Your task to perform on an android device: turn on sleep mode Image 0: 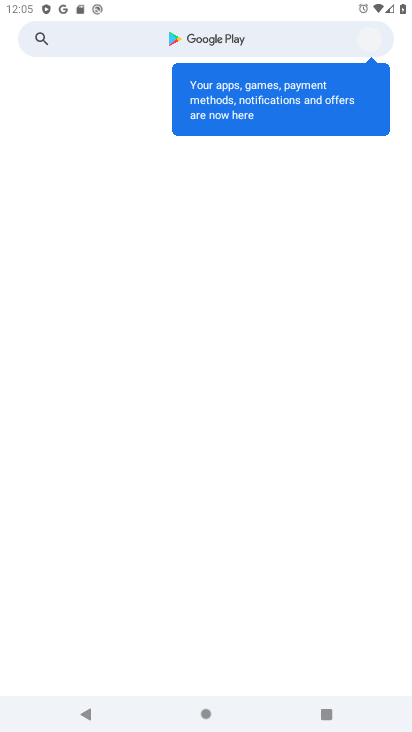
Step 0: press home button
Your task to perform on an android device: turn on sleep mode Image 1: 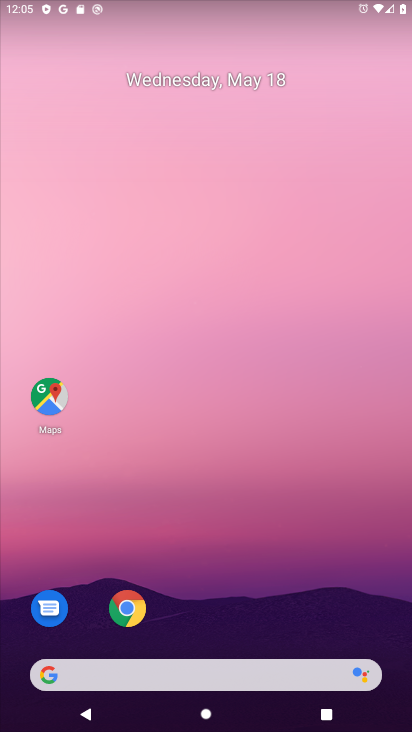
Step 1: drag from (281, 677) to (325, 211)
Your task to perform on an android device: turn on sleep mode Image 2: 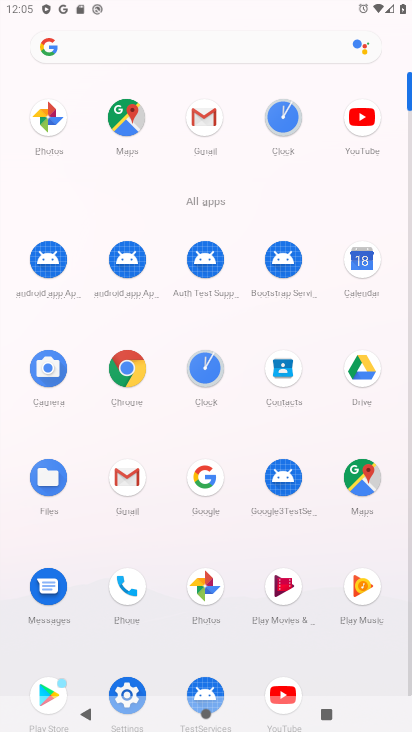
Step 2: click (129, 685)
Your task to perform on an android device: turn on sleep mode Image 3: 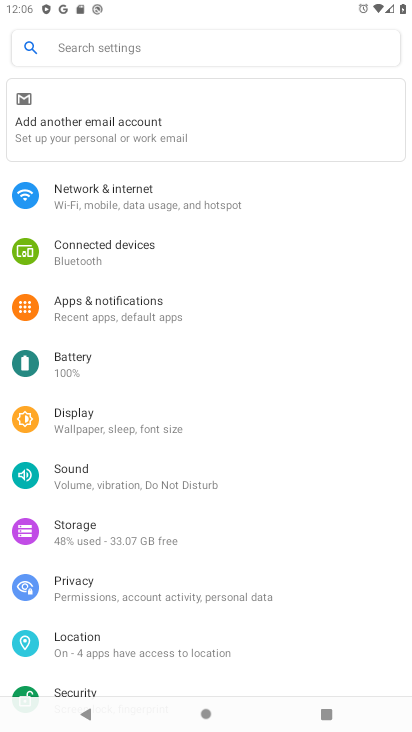
Step 3: click (86, 49)
Your task to perform on an android device: turn on sleep mode Image 4: 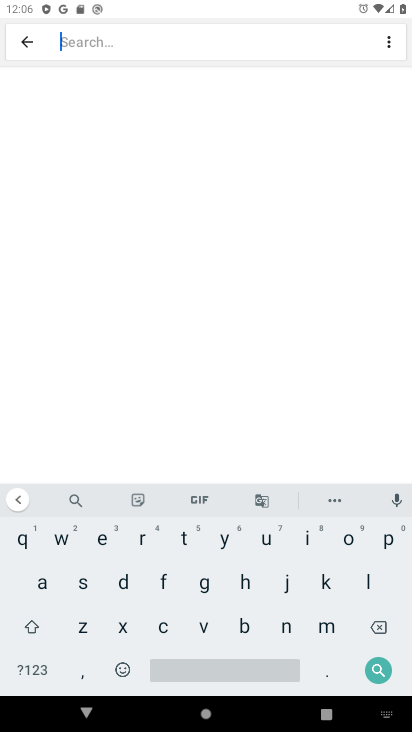
Step 4: click (81, 582)
Your task to perform on an android device: turn on sleep mode Image 5: 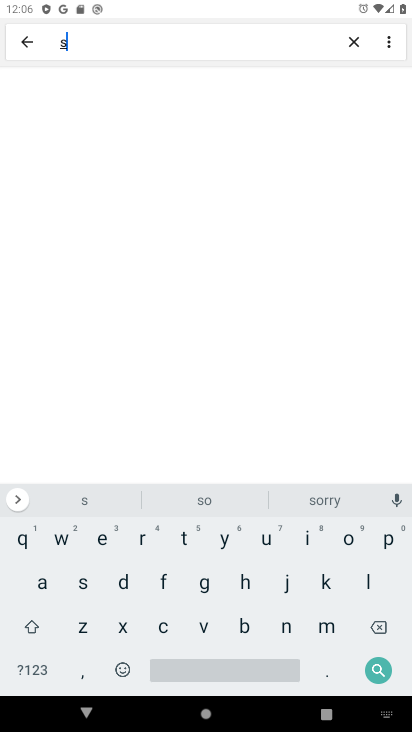
Step 5: click (369, 586)
Your task to perform on an android device: turn on sleep mode Image 6: 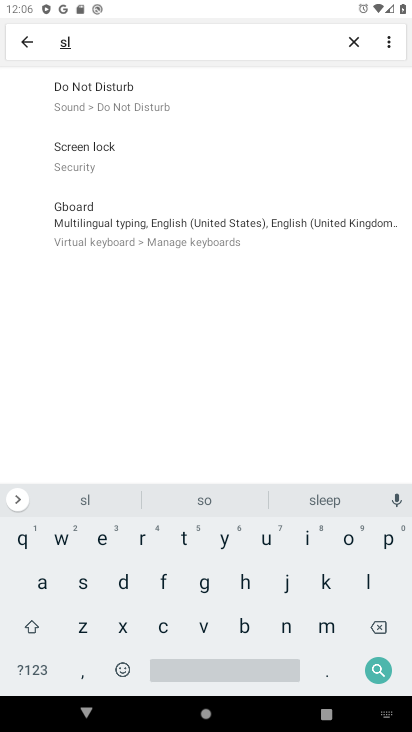
Step 6: click (125, 110)
Your task to perform on an android device: turn on sleep mode Image 7: 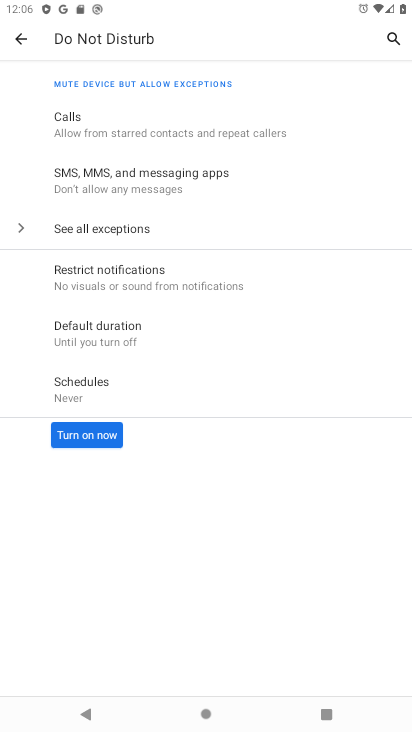
Step 7: click (85, 434)
Your task to perform on an android device: turn on sleep mode Image 8: 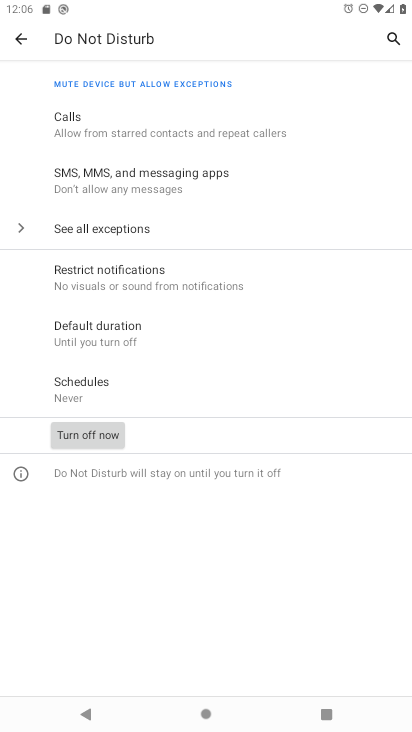
Step 8: click (84, 433)
Your task to perform on an android device: turn on sleep mode Image 9: 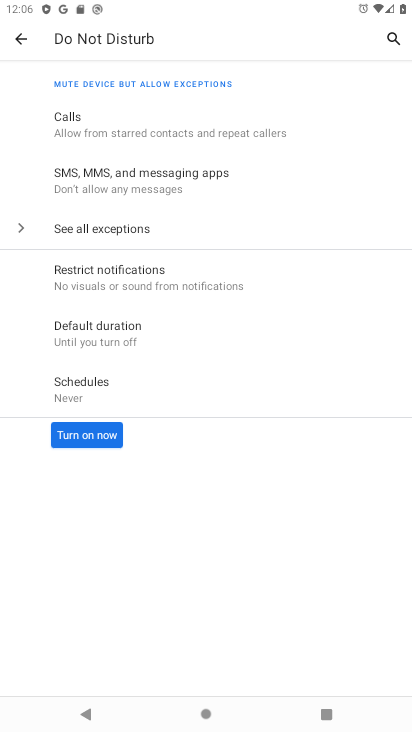
Step 9: task complete